Your task to perform on an android device: Go to accessibility settings Image 0: 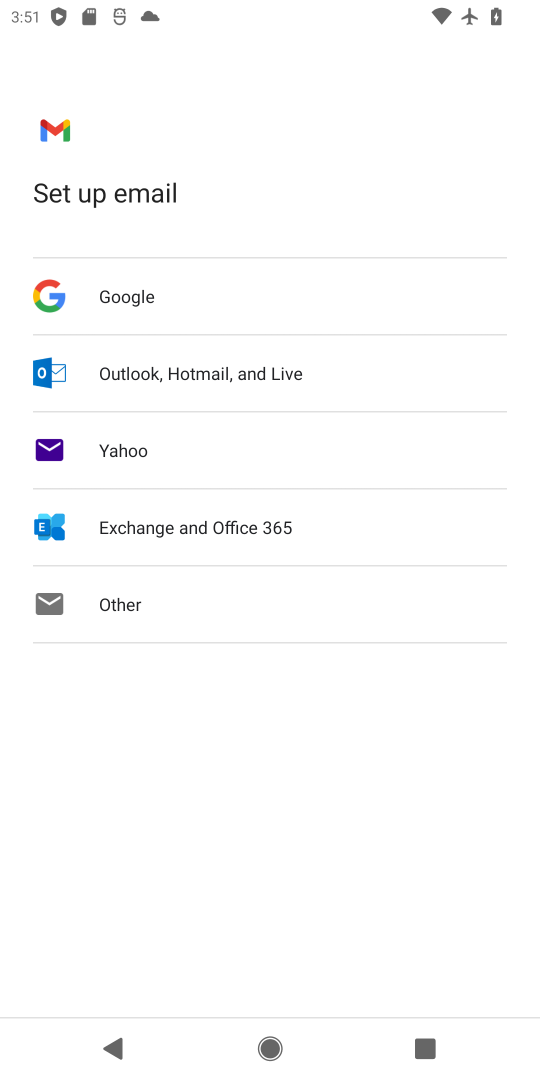
Step 0: press home button
Your task to perform on an android device: Go to accessibility settings Image 1: 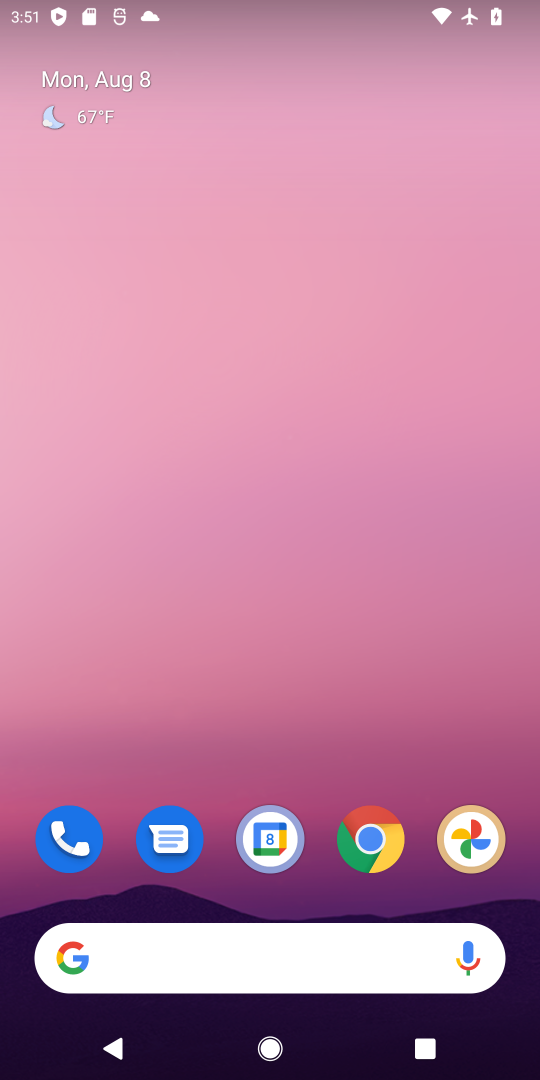
Step 1: drag from (412, 749) to (436, 270)
Your task to perform on an android device: Go to accessibility settings Image 2: 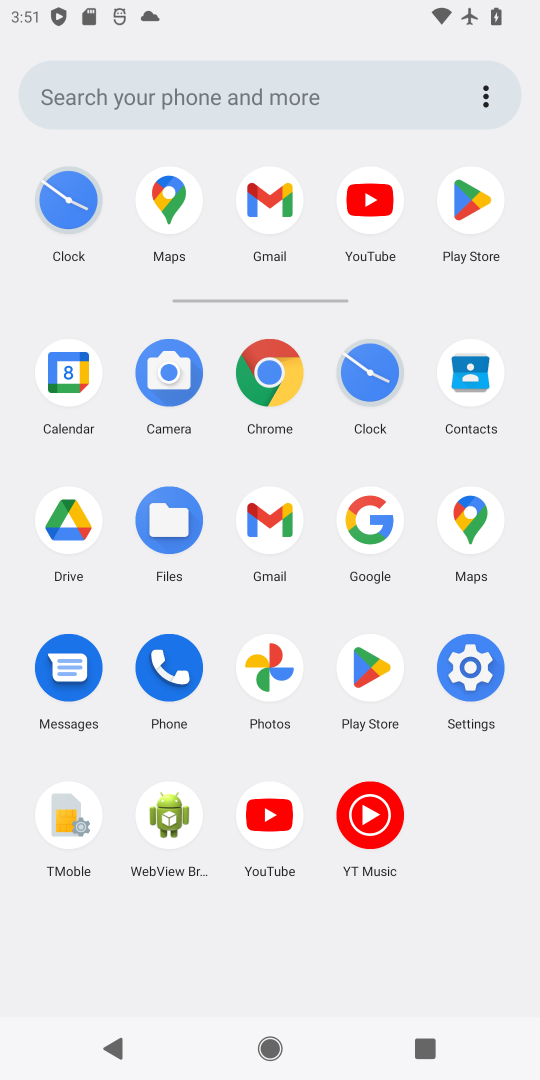
Step 2: click (474, 668)
Your task to perform on an android device: Go to accessibility settings Image 3: 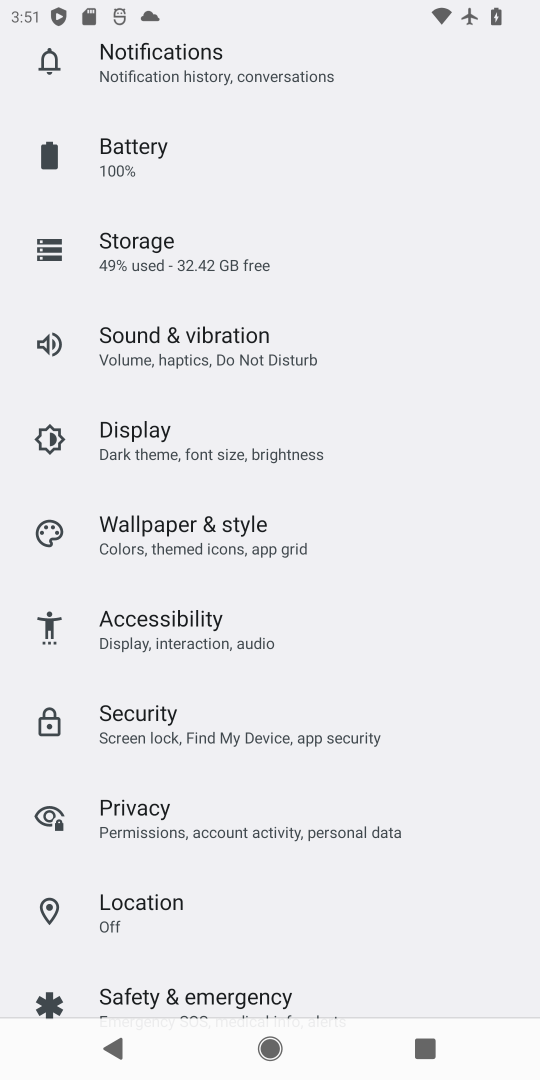
Step 3: drag from (447, 429) to (456, 710)
Your task to perform on an android device: Go to accessibility settings Image 4: 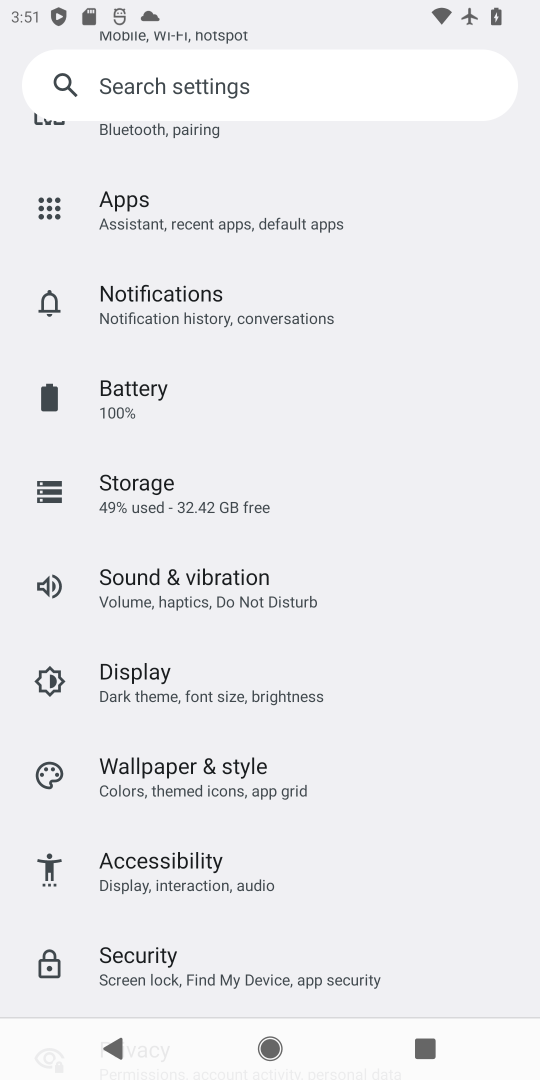
Step 4: drag from (445, 335) to (447, 687)
Your task to perform on an android device: Go to accessibility settings Image 5: 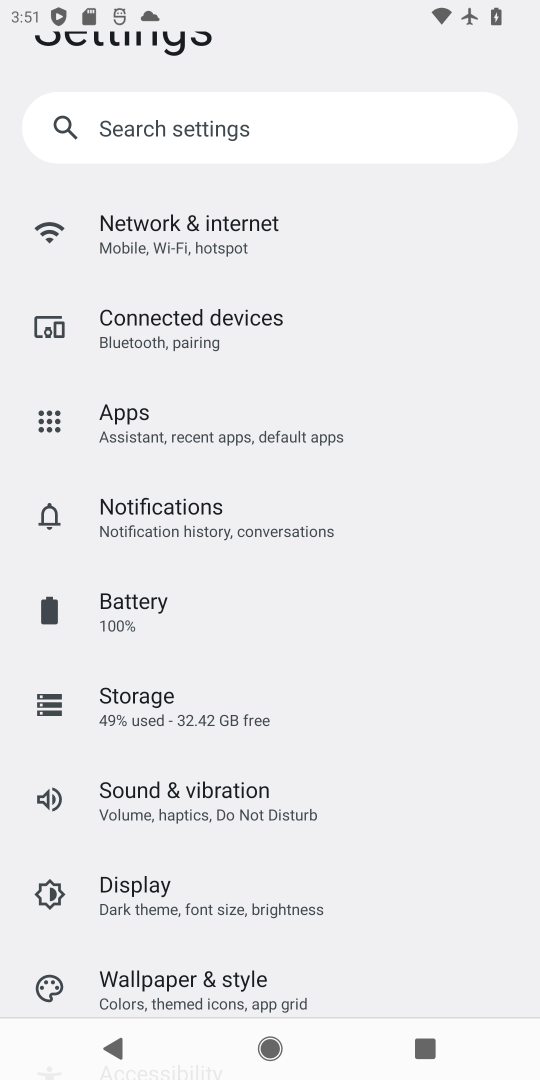
Step 5: drag from (435, 356) to (447, 678)
Your task to perform on an android device: Go to accessibility settings Image 6: 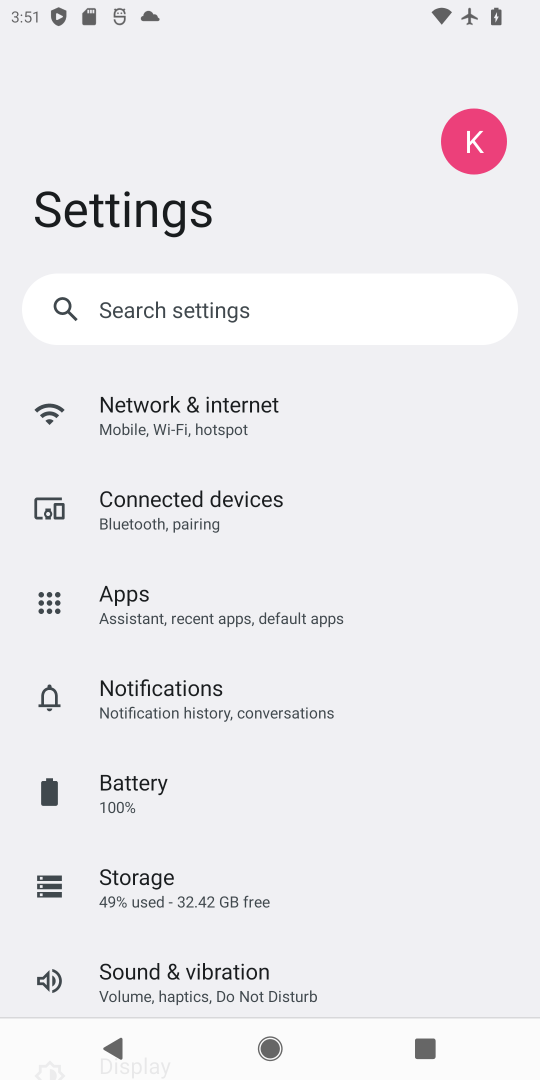
Step 6: drag from (458, 791) to (468, 586)
Your task to perform on an android device: Go to accessibility settings Image 7: 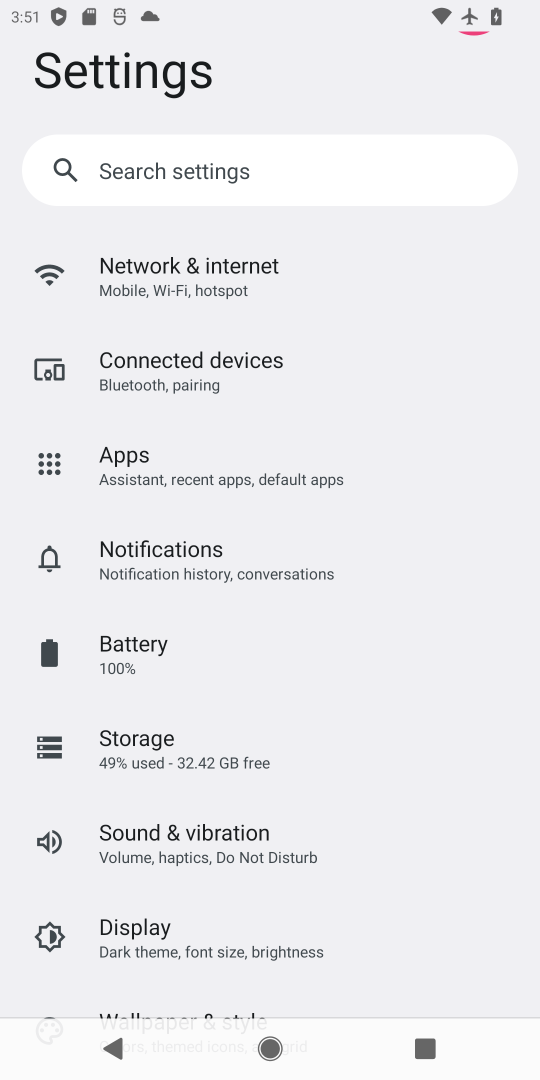
Step 7: drag from (441, 780) to (448, 476)
Your task to perform on an android device: Go to accessibility settings Image 8: 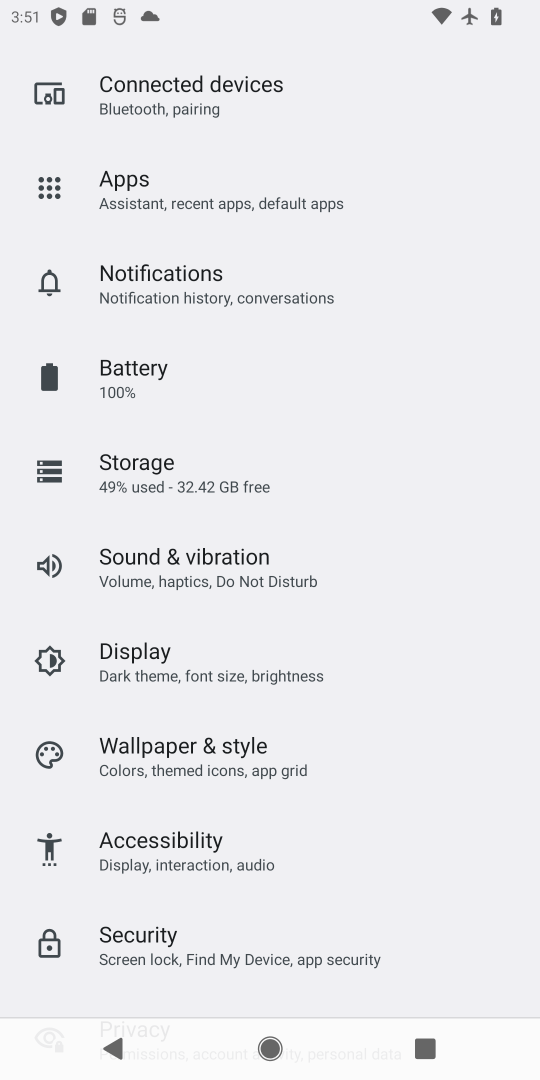
Step 8: drag from (419, 808) to (412, 526)
Your task to perform on an android device: Go to accessibility settings Image 9: 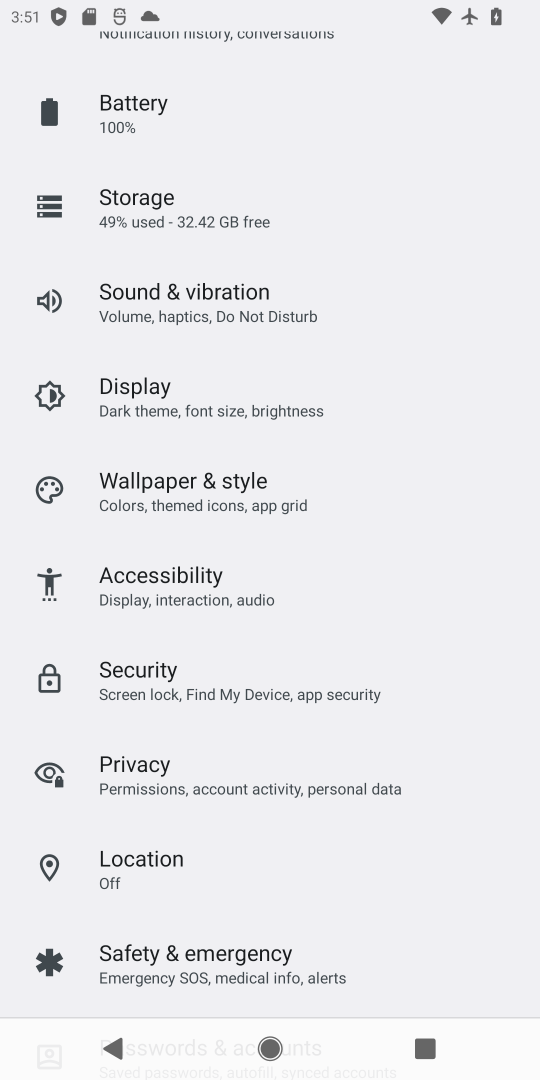
Step 9: drag from (415, 850) to (436, 614)
Your task to perform on an android device: Go to accessibility settings Image 10: 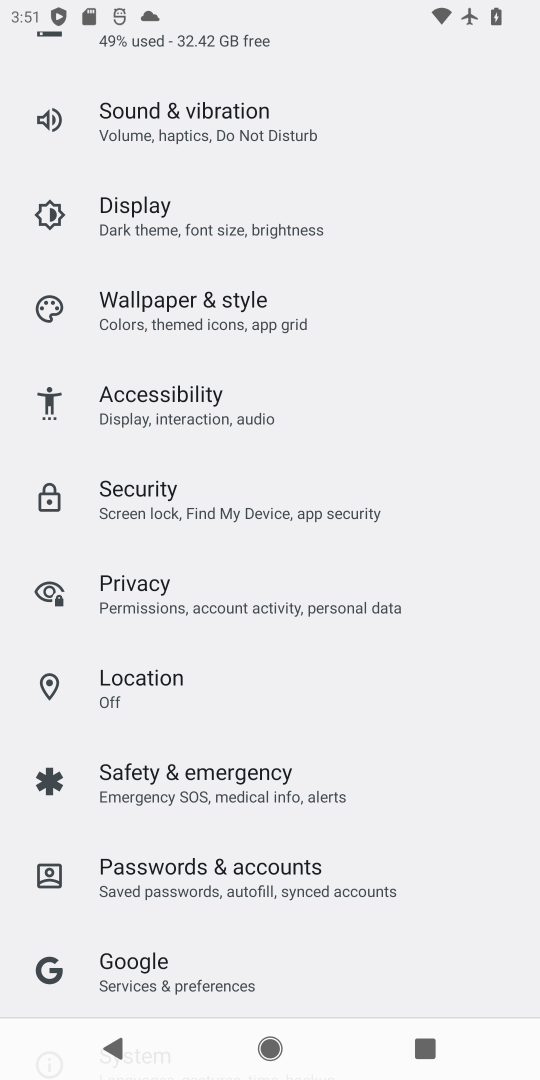
Step 10: drag from (431, 890) to (447, 642)
Your task to perform on an android device: Go to accessibility settings Image 11: 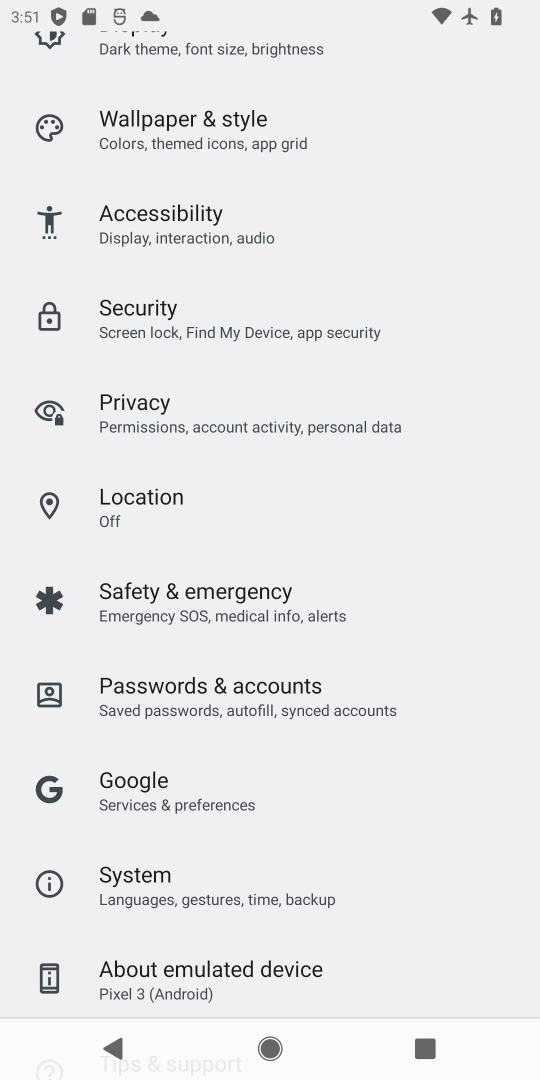
Step 11: drag from (440, 877) to (436, 626)
Your task to perform on an android device: Go to accessibility settings Image 12: 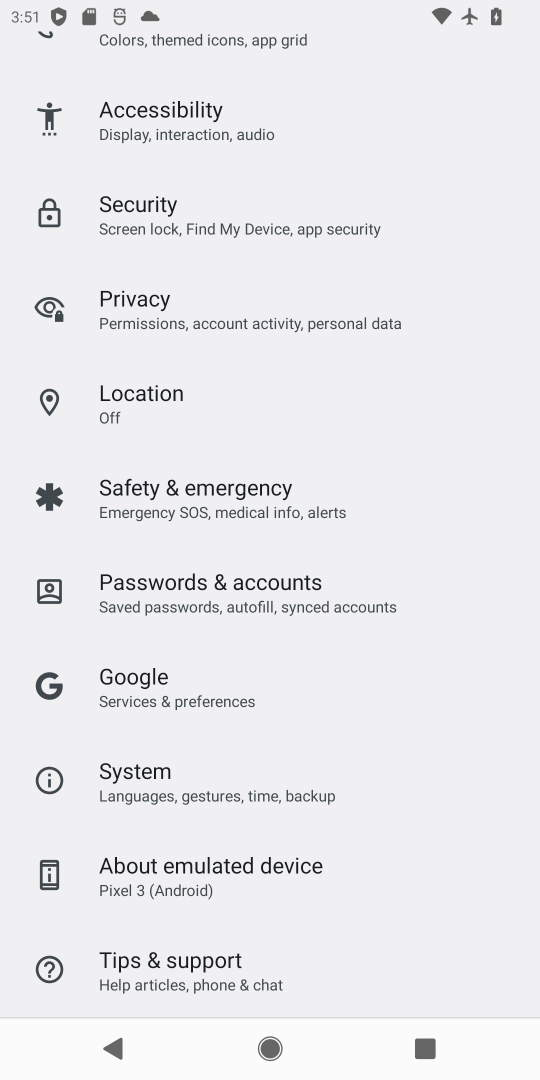
Step 12: drag from (429, 410) to (444, 790)
Your task to perform on an android device: Go to accessibility settings Image 13: 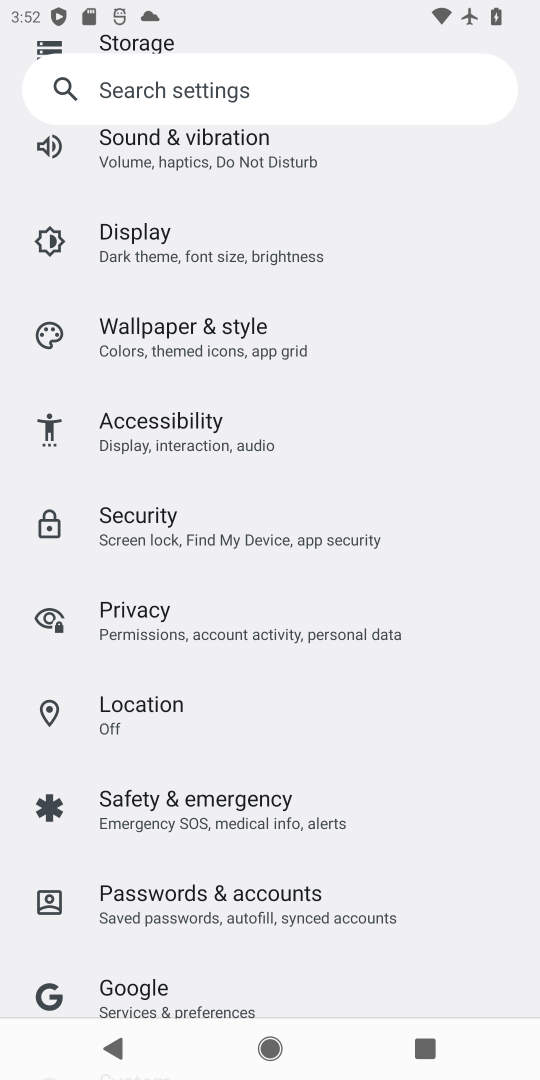
Step 13: click (284, 421)
Your task to perform on an android device: Go to accessibility settings Image 14: 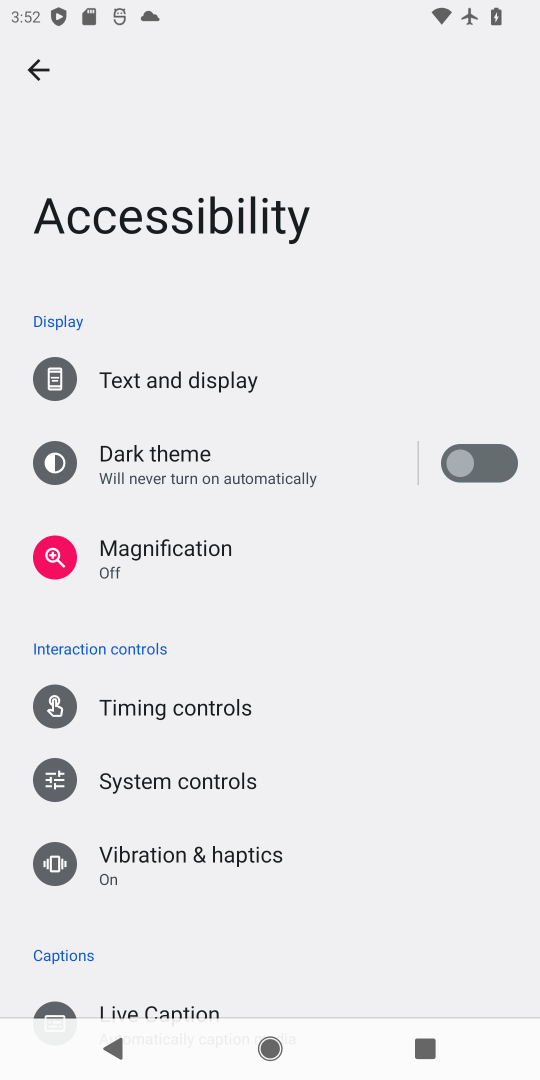
Step 14: task complete